Your task to perform on an android device: How much does a 2 bedroom apartment rent for in Boston? Image 0: 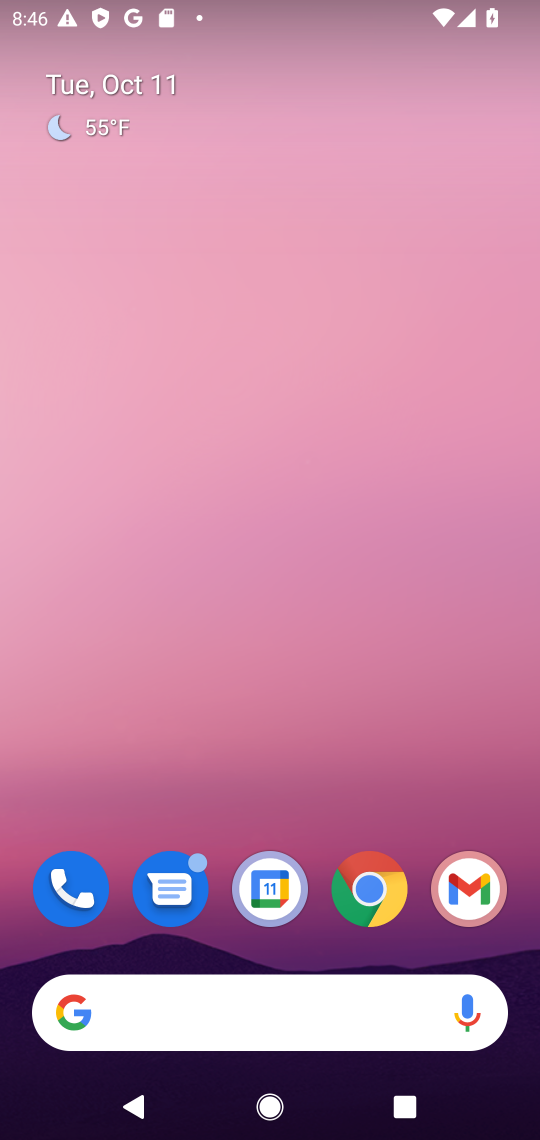
Step 0: click (214, 1031)
Your task to perform on an android device: How much does a 2 bedroom apartment rent for in Boston? Image 1: 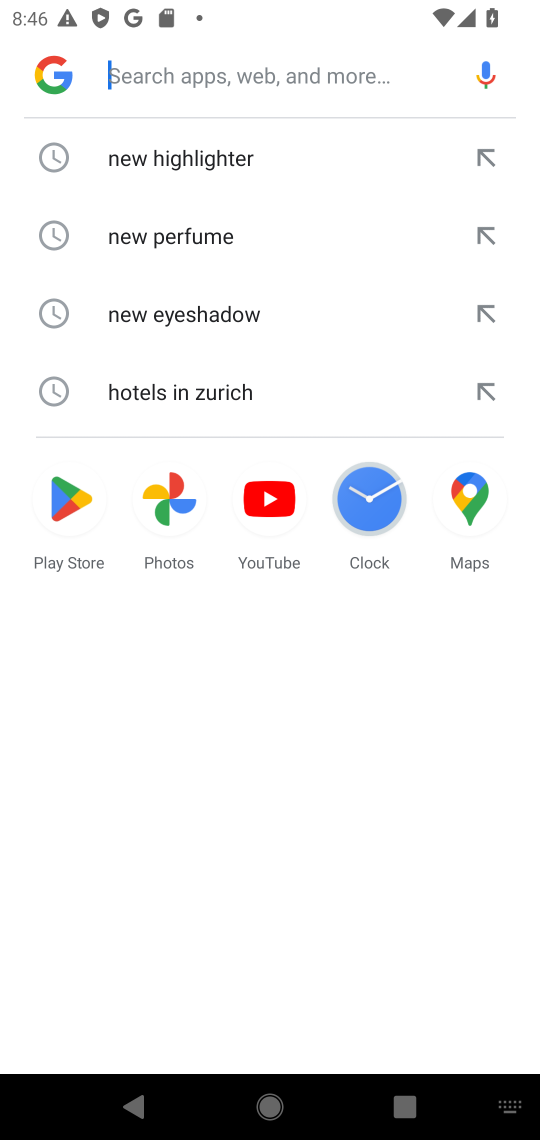
Step 1: click (155, 72)
Your task to perform on an android device: How much does a 2 bedroom apartment rent for in Boston? Image 2: 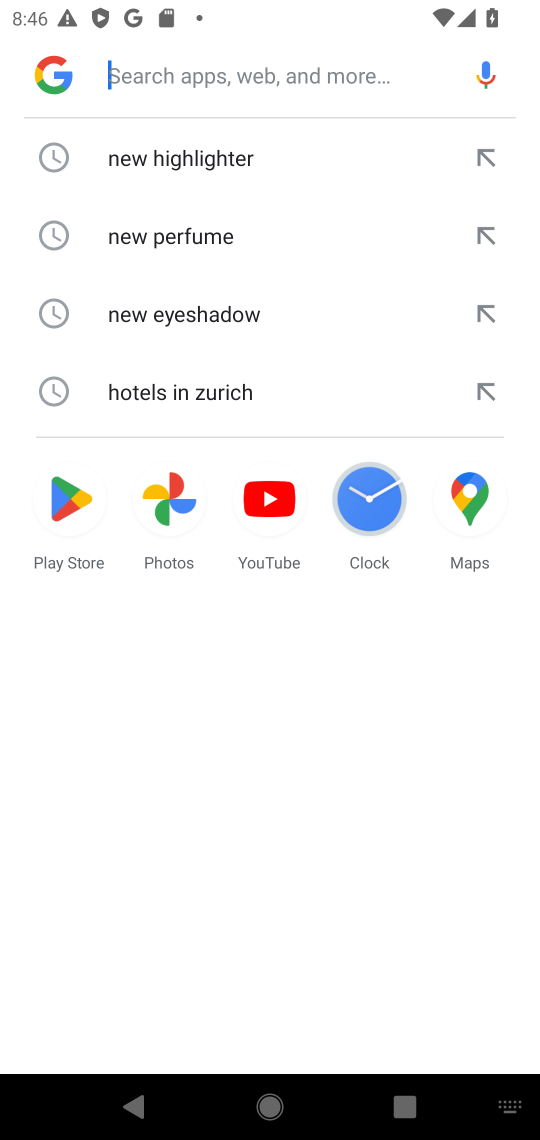
Step 2: type "How much does a 2 bedroom apartment rent for in Boston?"
Your task to perform on an android device: How much does a 2 bedroom apartment rent for in Boston? Image 3: 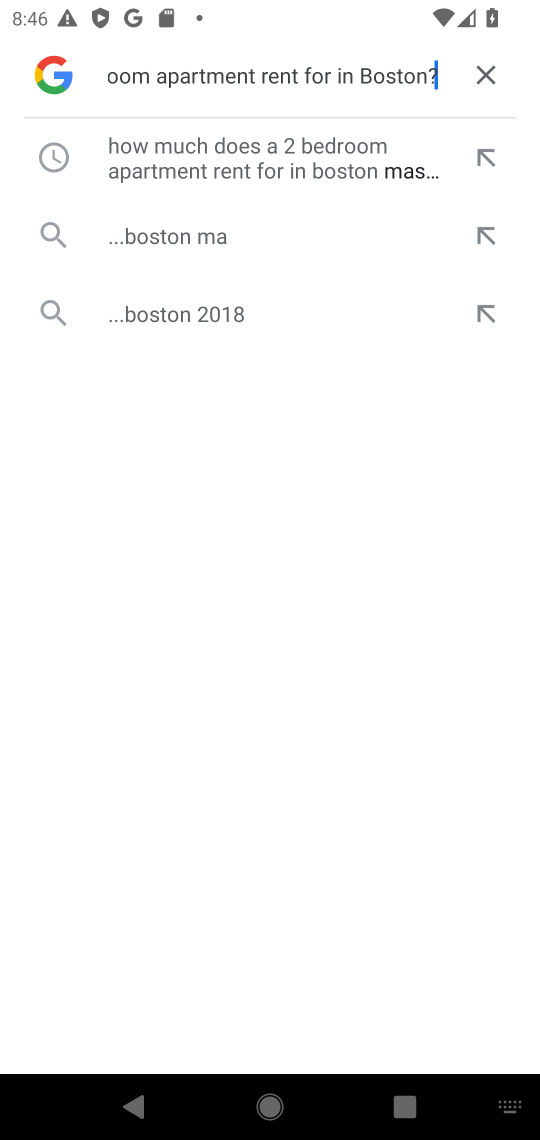
Step 3: click (182, 147)
Your task to perform on an android device: How much does a 2 bedroom apartment rent for in Boston? Image 4: 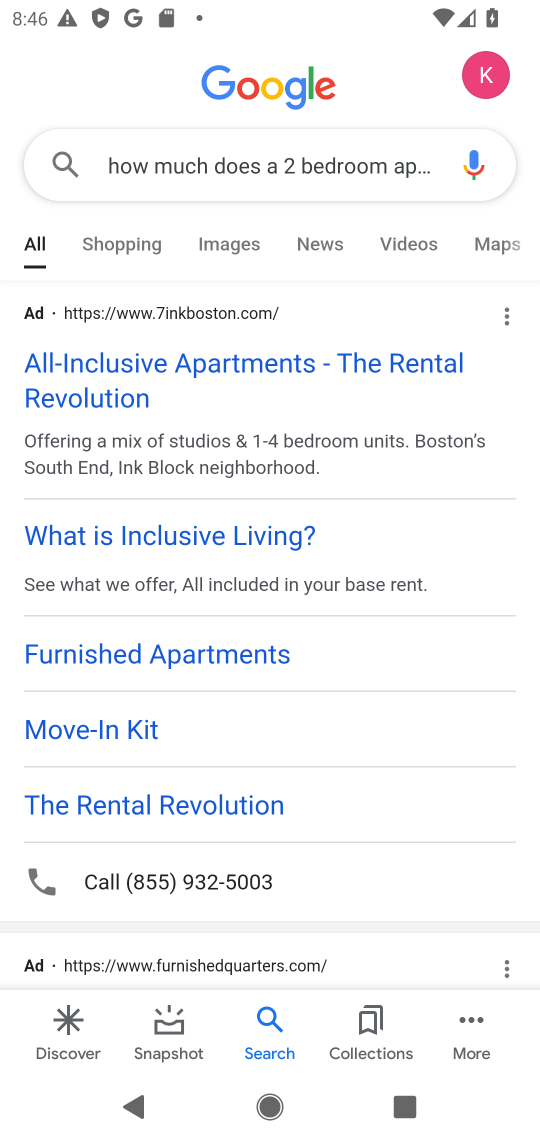
Step 4: task complete